Your task to perform on an android device: star an email in the gmail app Image 0: 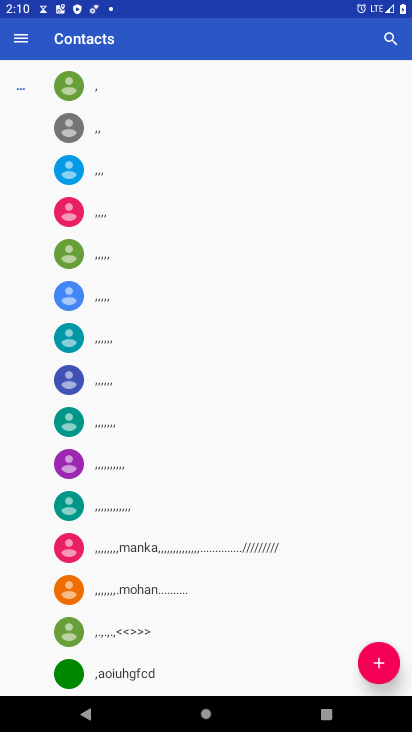
Step 0: press home button
Your task to perform on an android device: star an email in the gmail app Image 1: 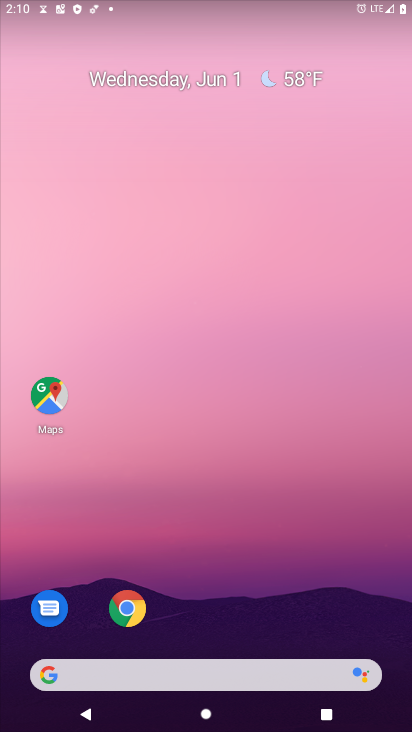
Step 1: drag from (210, 609) to (203, 127)
Your task to perform on an android device: star an email in the gmail app Image 2: 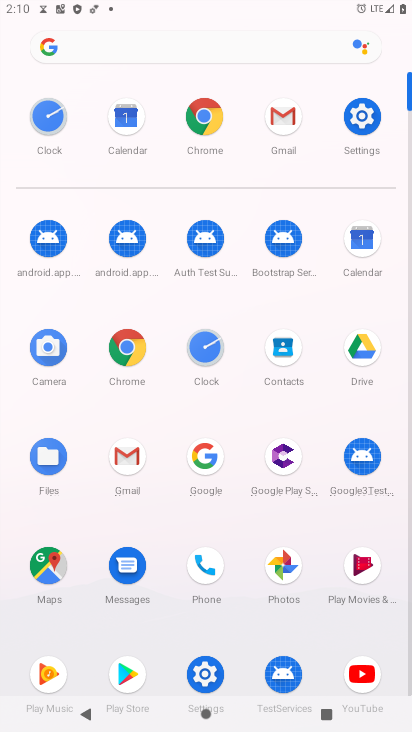
Step 2: click (283, 131)
Your task to perform on an android device: star an email in the gmail app Image 3: 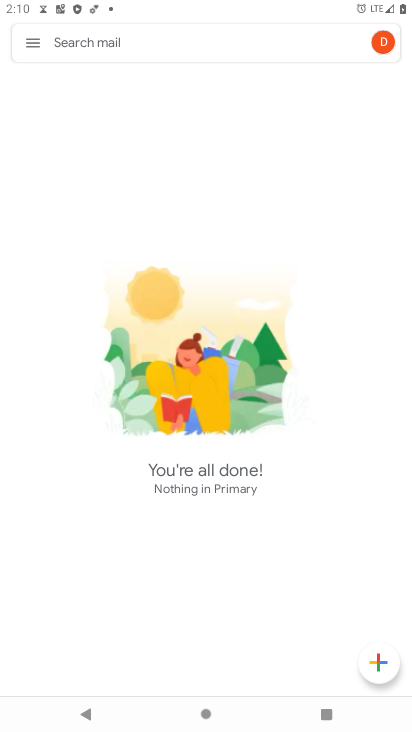
Step 3: click (39, 47)
Your task to perform on an android device: star an email in the gmail app Image 4: 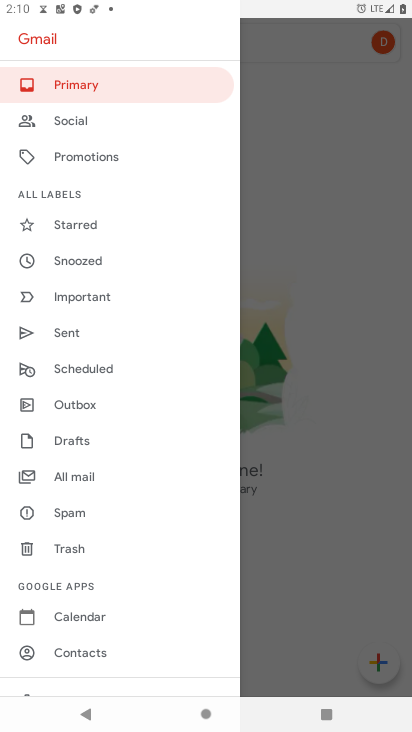
Step 4: drag from (187, 518) to (220, 122)
Your task to perform on an android device: star an email in the gmail app Image 5: 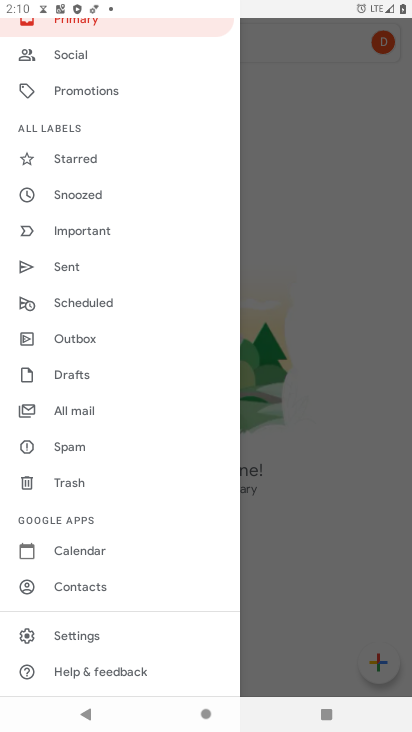
Step 5: click (72, 156)
Your task to perform on an android device: star an email in the gmail app Image 6: 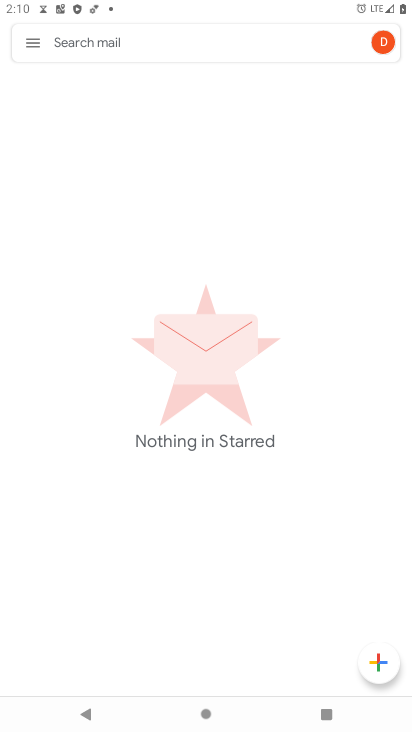
Step 6: task complete